Your task to perform on an android device: Open Google Chrome Image 0: 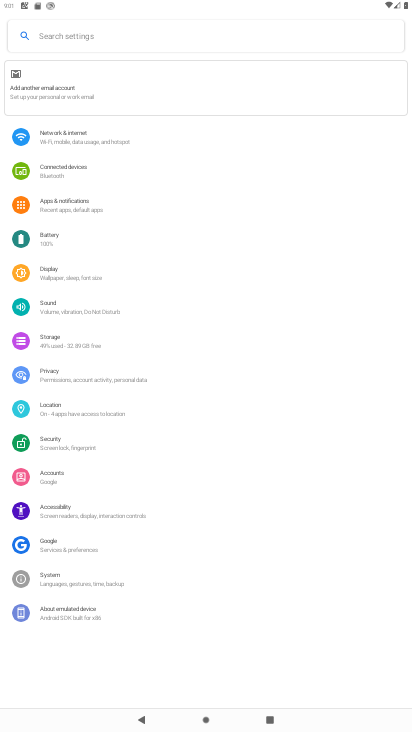
Step 0: press home button
Your task to perform on an android device: Open Google Chrome Image 1: 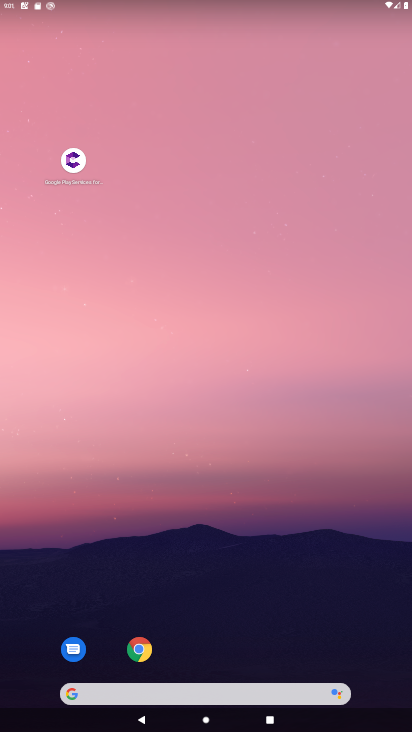
Step 1: drag from (207, 678) to (158, 48)
Your task to perform on an android device: Open Google Chrome Image 2: 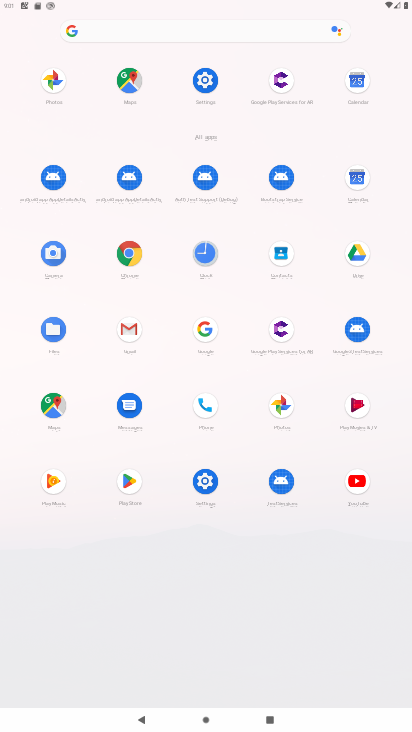
Step 2: click (102, 260)
Your task to perform on an android device: Open Google Chrome Image 3: 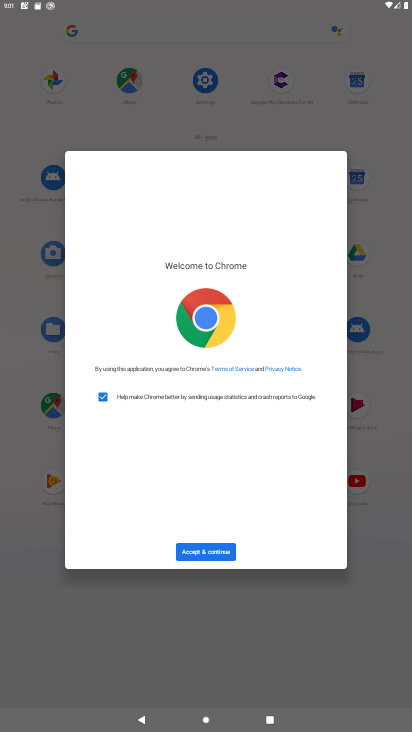
Step 3: click (221, 545)
Your task to perform on an android device: Open Google Chrome Image 4: 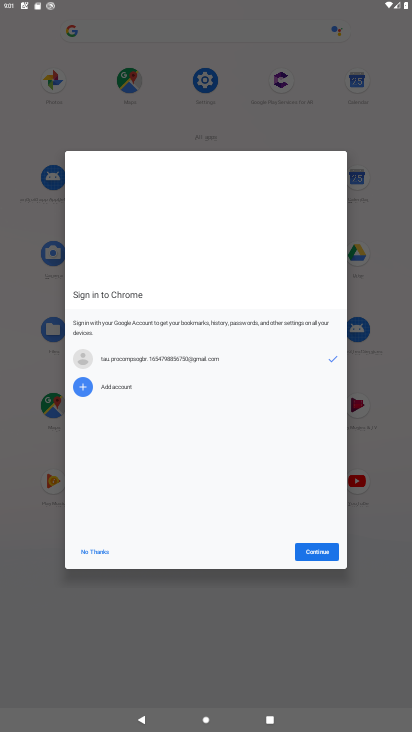
Step 4: click (301, 551)
Your task to perform on an android device: Open Google Chrome Image 5: 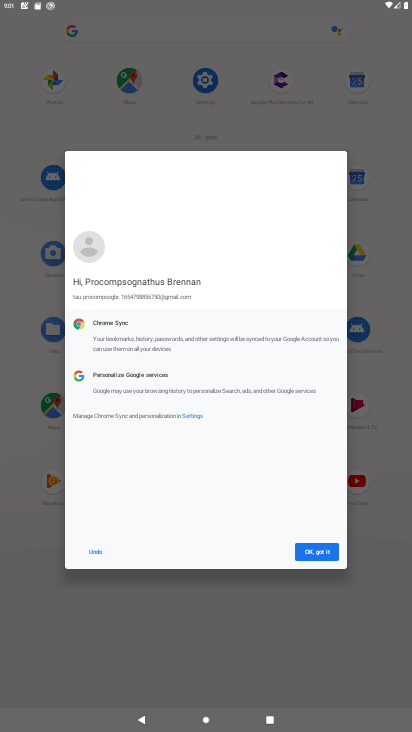
Step 5: click (301, 551)
Your task to perform on an android device: Open Google Chrome Image 6: 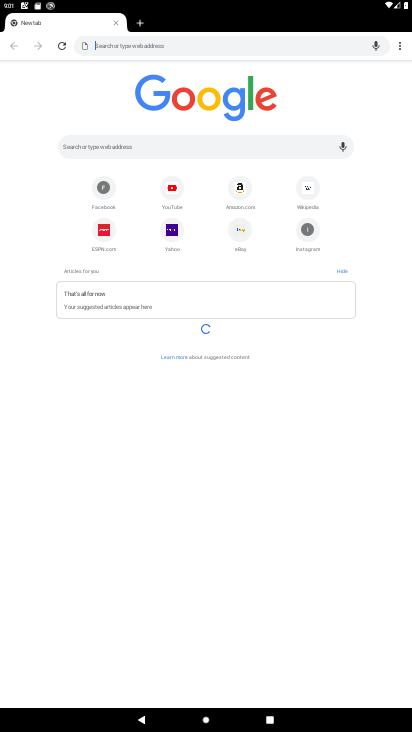
Step 6: task complete